Your task to perform on an android device: open sync settings in chrome Image 0: 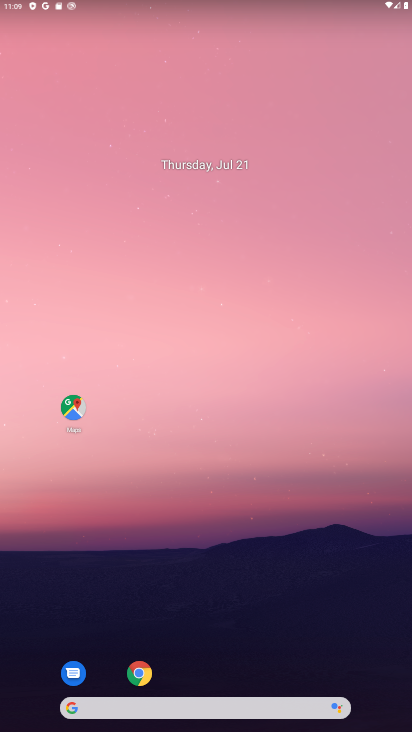
Step 0: click (141, 670)
Your task to perform on an android device: open sync settings in chrome Image 1: 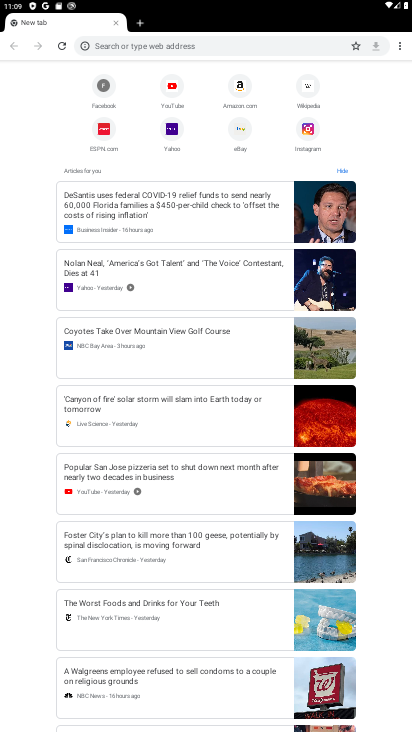
Step 1: click (399, 42)
Your task to perform on an android device: open sync settings in chrome Image 2: 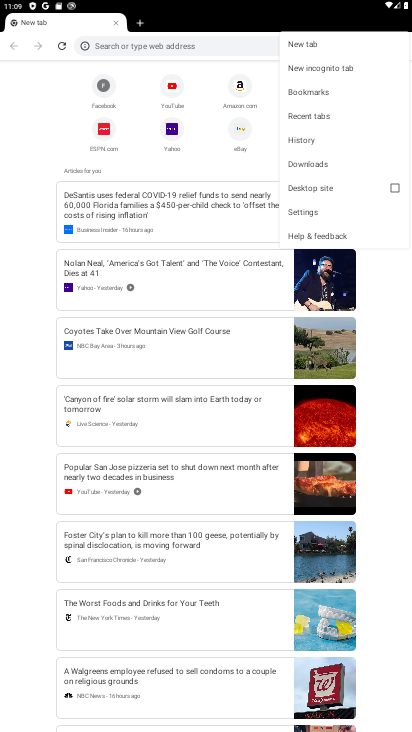
Step 2: click (319, 210)
Your task to perform on an android device: open sync settings in chrome Image 3: 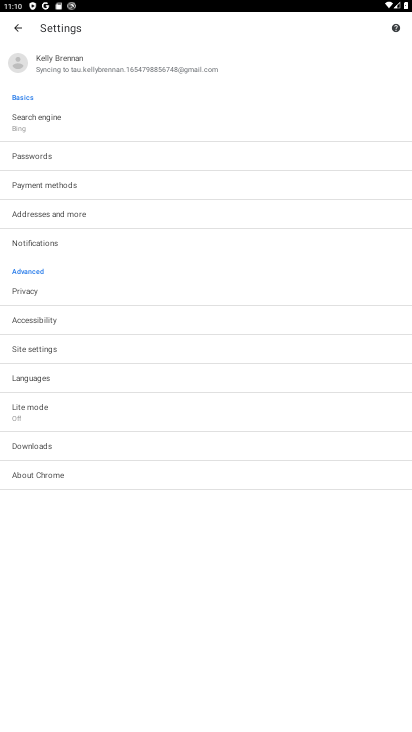
Step 3: click (125, 59)
Your task to perform on an android device: open sync settings in chrome Image 4: 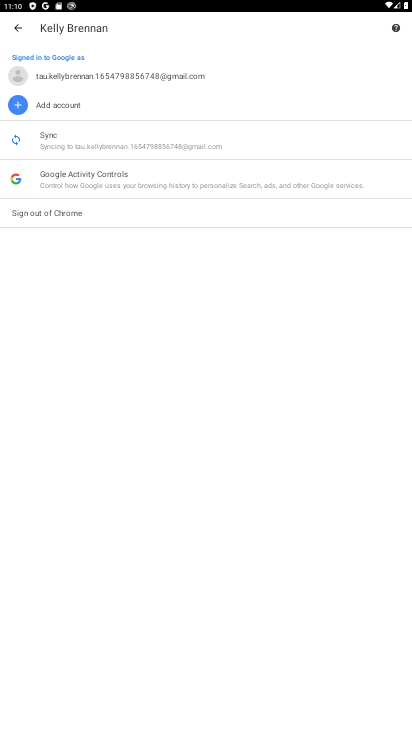
Step 4: click (125, 59)
Your task to perform on an android device: open sync settings in chrome Image 5: 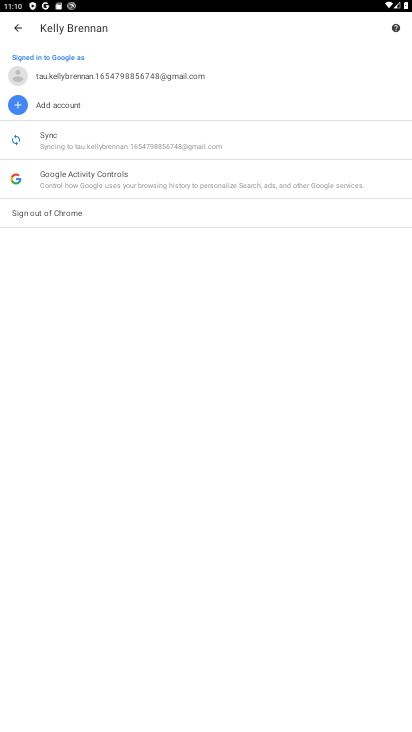
Step 5: click (87, 141)
Your task to perform on an android device: open sync settings in chrome Image 6: 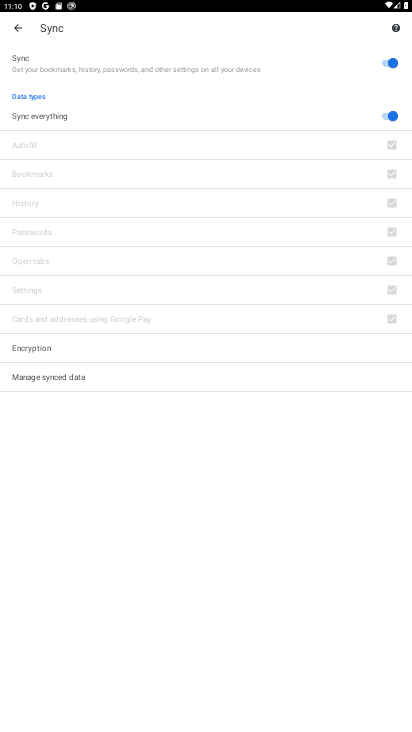
Step 6: task complete